Your task to perform on an android device: What's the weather today? Image 0: 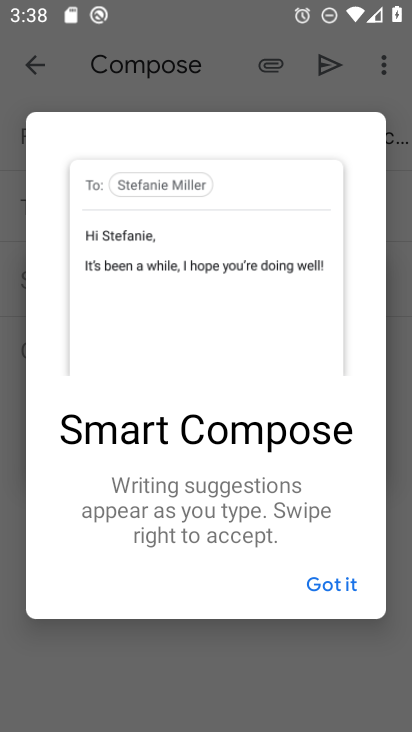
Step 0: press home button
Your task to perform on an android device: What's the weather today? Image 1: 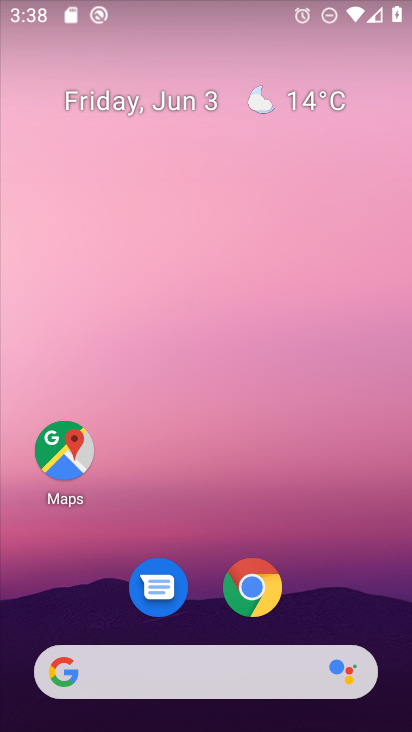
Step 1: drag from (233, 716) to (235, 76)
Your task to perform on an android device: What's the weather today? Image 2: 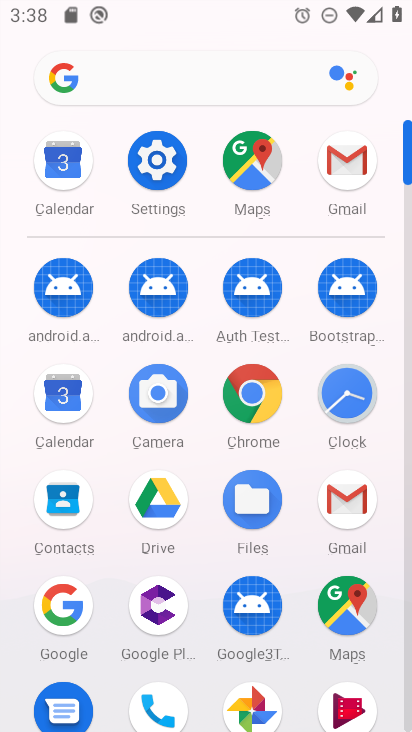
Step 2: click (59, 603)
Your task to perform on an android device: What's the weather today? Image 3: 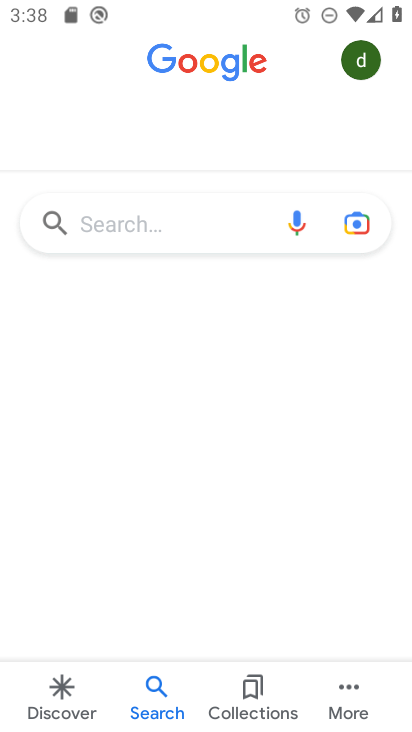
Step 3: click (153, 241)
Your task to perform on an android device: What's the weather today? Image 4: 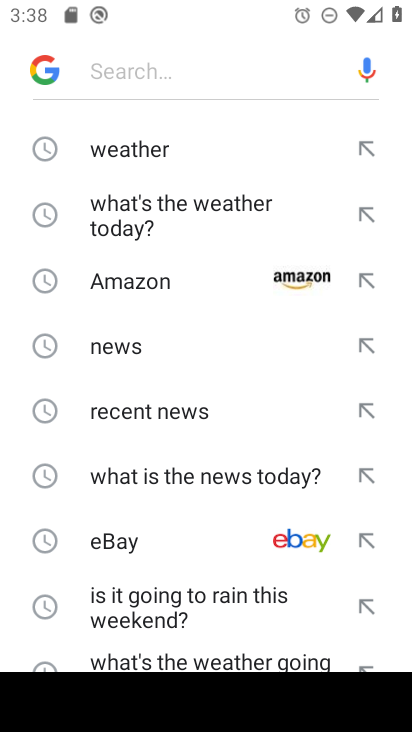
Step 4: click (117, 145)
Your task to perform on an android device: What's the weather today? Image 5: 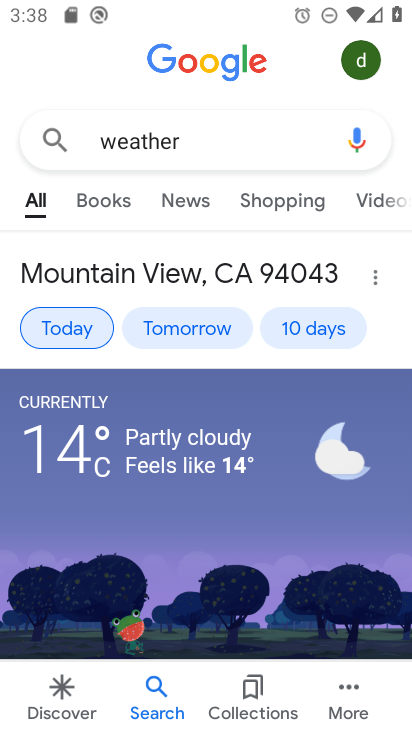
Step 5: click (70, 325)
Your task to perform on an android device: What's the weather today? Image 6: 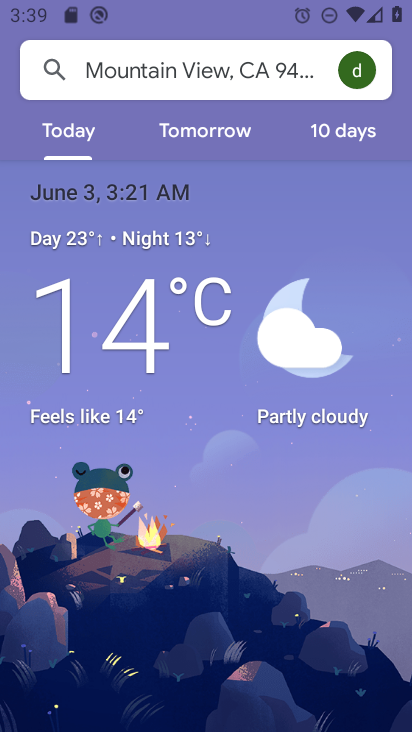
Step 6: task complete